Your task to perform on an android device: Open Wikipedia Image 0: 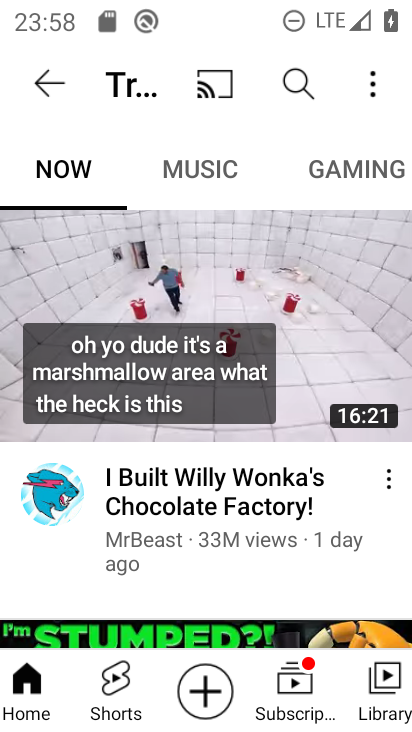
Step 0: press home button
Your task to perform on an android device: Open Wikipedia Image 1: 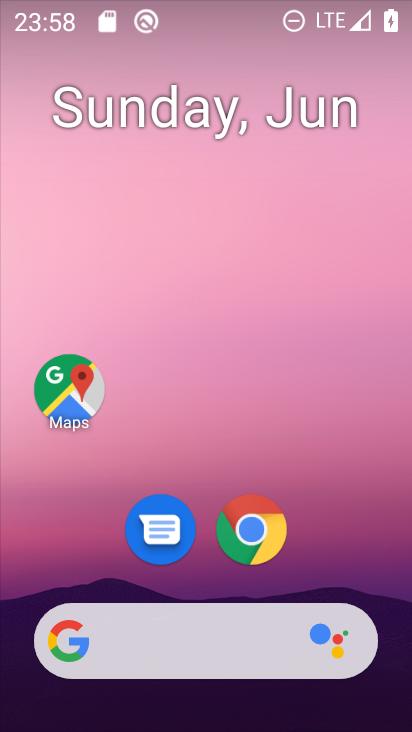
Step 1: click (252, 530)
Your task to perform on an android device: Open Wikipedia Image 2: 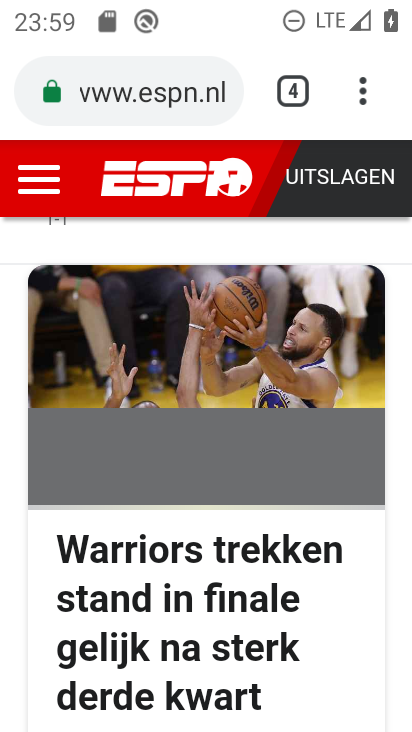
Step 2: click (187, 69)
Your task to perform on an android device: Open Wikipedia Image 3: 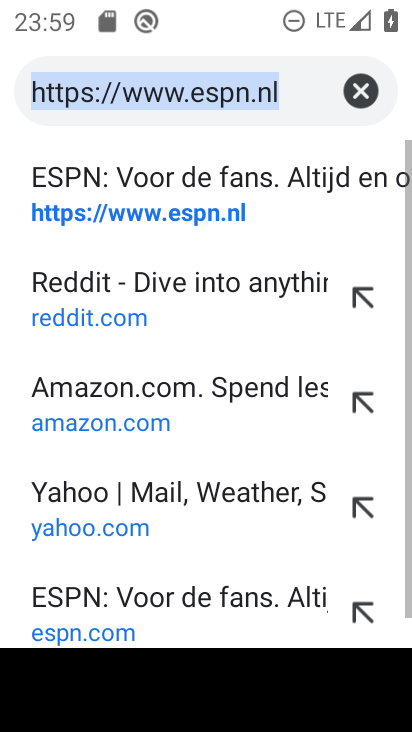
Step 3: click (356, 92)
Your task to perform on an android device: Open Wikipedia Image 4: 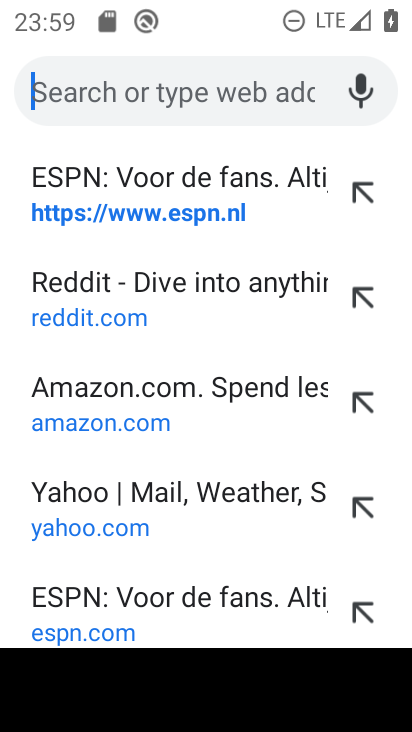
Step 4: type "wikipedia"
Your task to perform on an android device: Open Wikipedia Image 5: 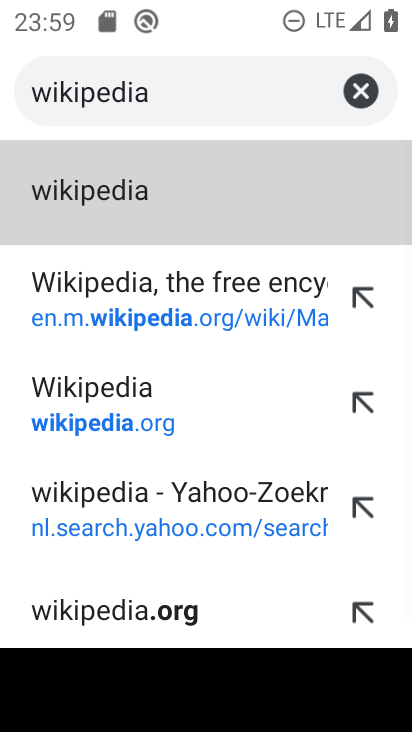
Step 5: click (130, 193)
Your task to perform on an android device: Open Wikipedia Image 6: 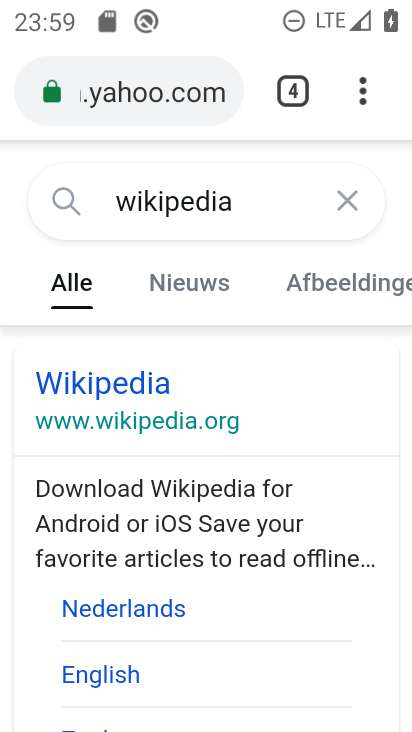
Step 6: click (121, 386)
Your task to perform on an android device: Open Wikipedia Image 7: 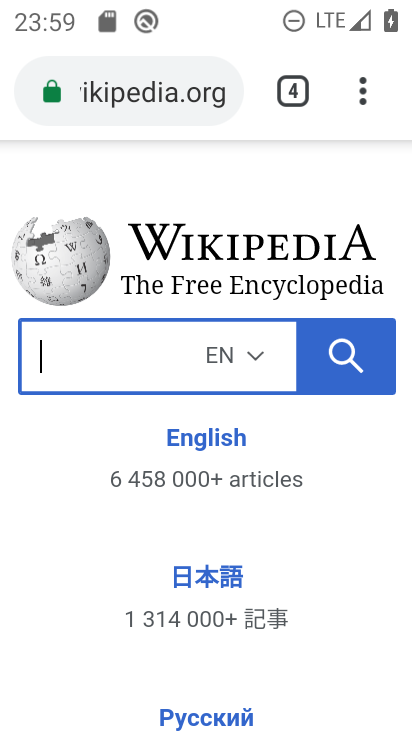
Step 7: task complete